Your task to perform on an android device: What's the weather going to be tomorrow? Image 0: 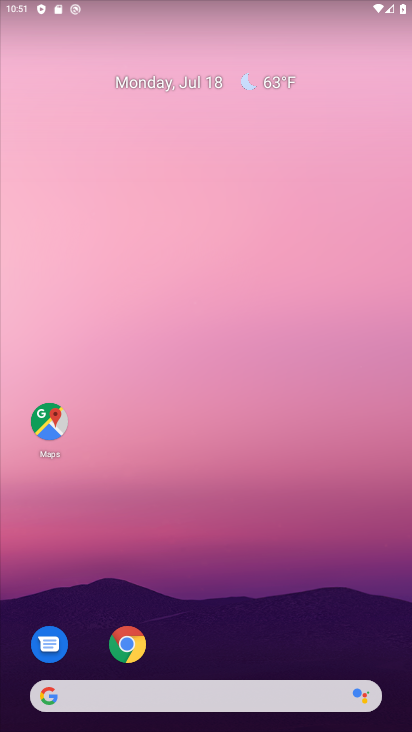
Step 0: click (106, 688)
Your task to perform on an android device: What's the weather going to be tomorrow? Image 1: 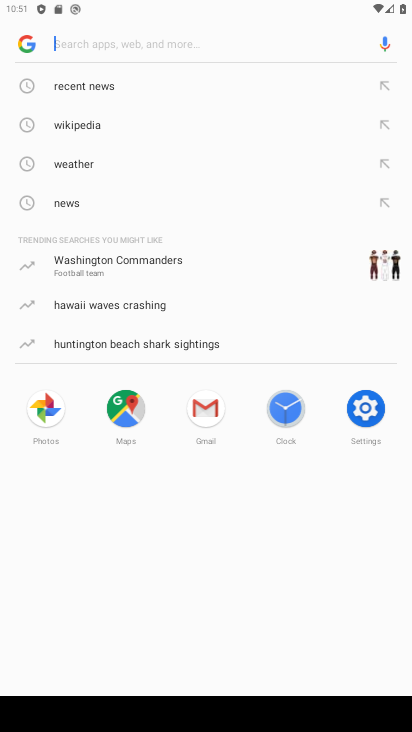
Step 1: type "what's the weather going to be tomorrow"
Your task to perform on an android device: What's the weather going to be tomorrow? Image 2: 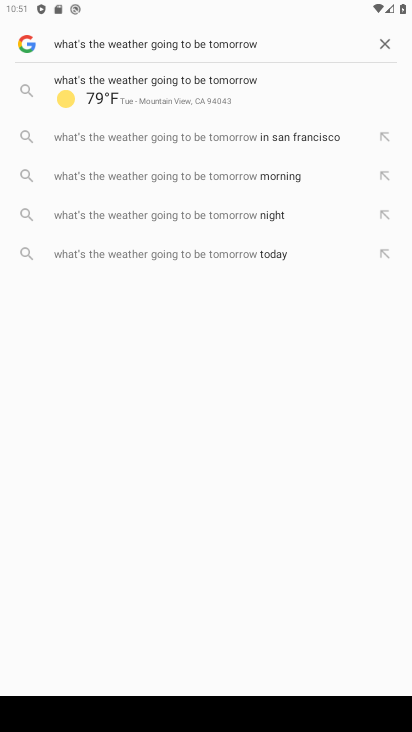
Step 2: click (143, 104)
Your task to perform on an android device: What's the weather going to be tomorrow? Image 3: 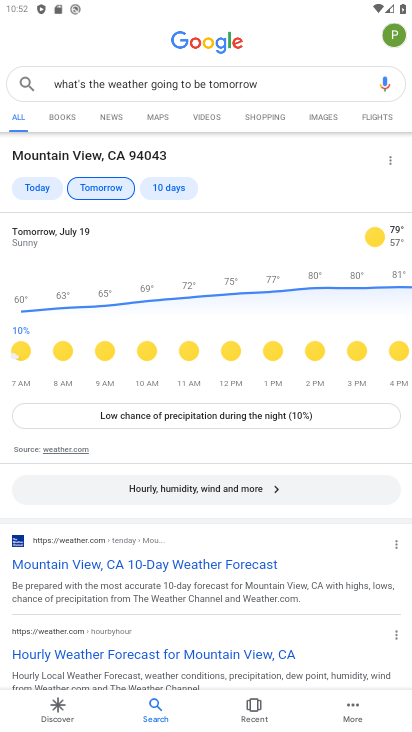
Step 3: task complete